Your task to perform on an android device: Open calendar and show me the fourth week of next month Image 0: 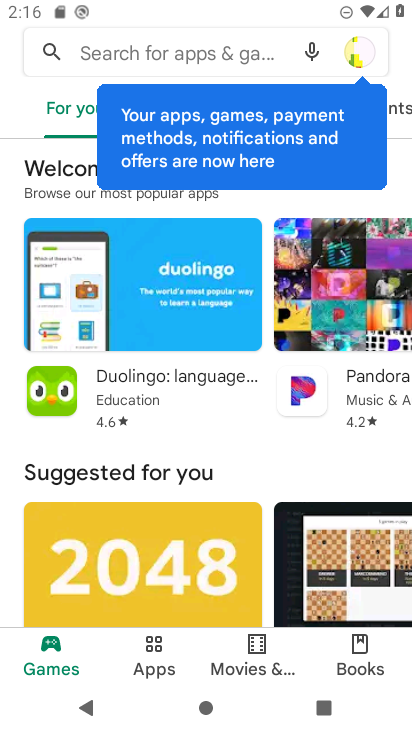
Step 0: press home button
Your task to perform on an android device: Open calendar and show me the fourth week of next month Image 1: 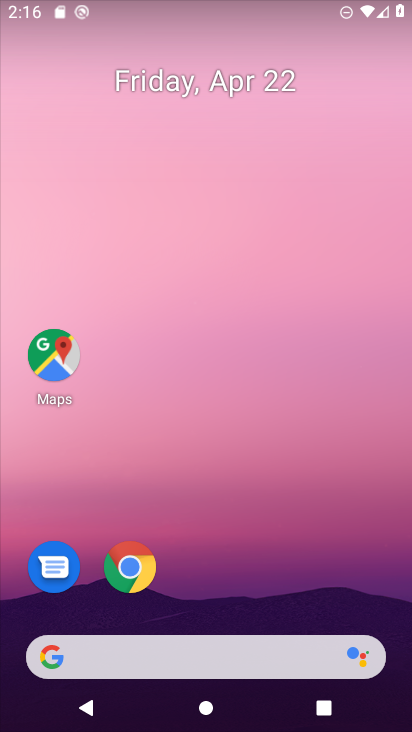
Step 1: drag from (226, 510) to (262, 204)
Your task to perform on an android device: Open calendar and show me the fourth week of next month Image 2: 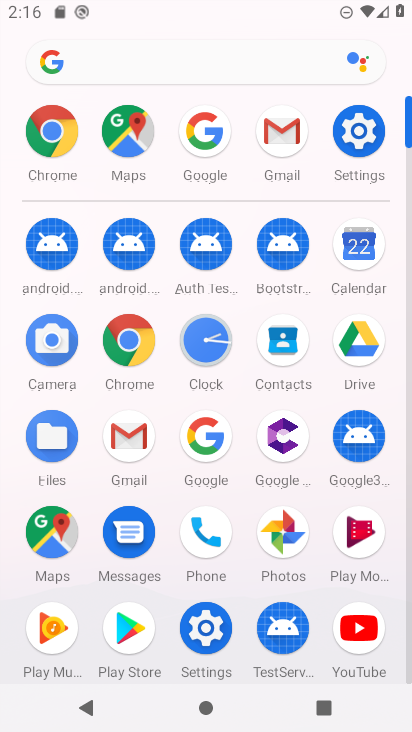
Step 2: click (361, 250)
Your task to perform on an android device: Open calendar and show me the fourth week of next month Image 3: 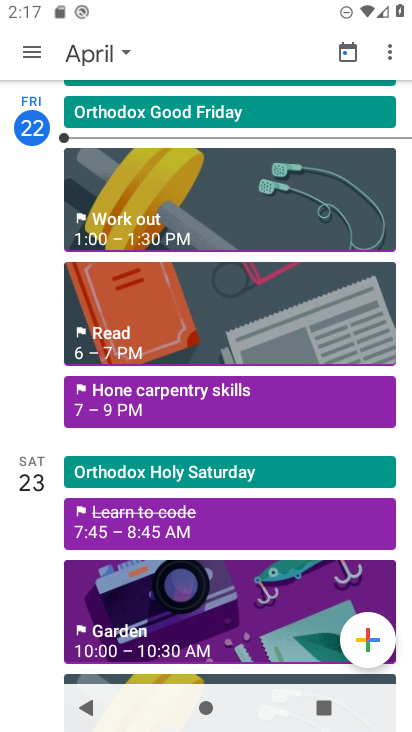
Step 3: click (78, 53)
Your task to perform on an android device: Open calendar and show me the fourth week of next month Image 4: 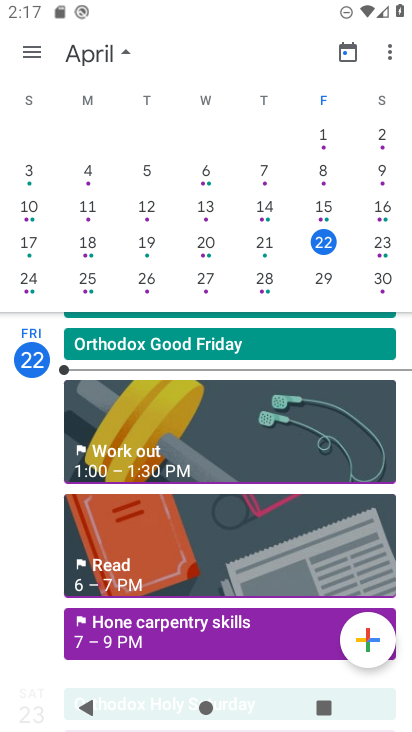
Step 4: drag from (383, 205) to (13, 129)
Your task to perform on an android device: Open calendar and show me the fourth week of next month Image 5: 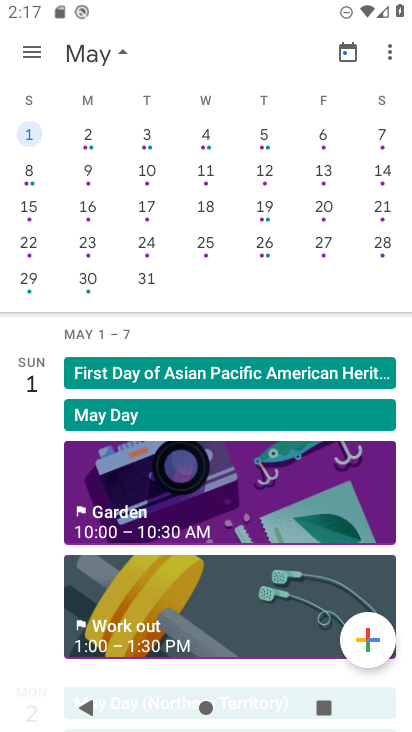
Step 5: click (33, 51)
Your task to perform on an android device: Open calendar and show me the fourth week of next month Image 6: 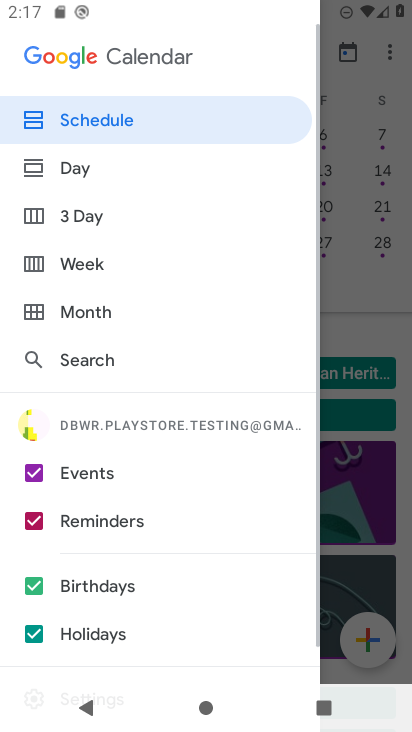
Step 6: click (109, 269)
Your task to perform on an android device: Open calendar and show me the fourth week of next month Image 7: 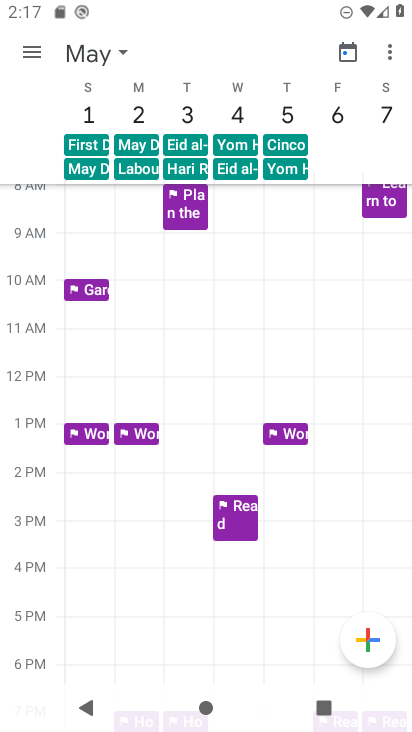
Step 7: task complete